Your task to perform on an android device: check battery use Image 0: 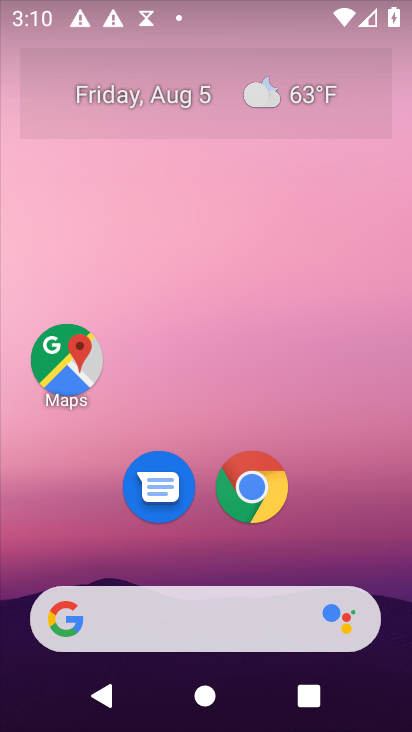
Step 0: click (350, 70)
Your task to perform on an android device: check battery use Image 1: 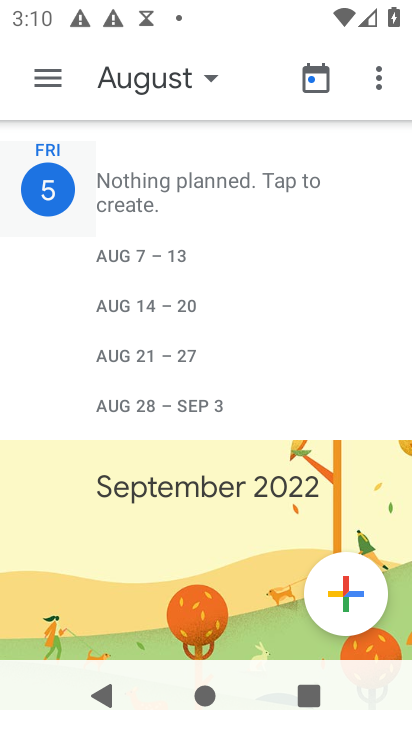
Step 1: press home button
Your task to perform on an android device: check battery use Image 2: 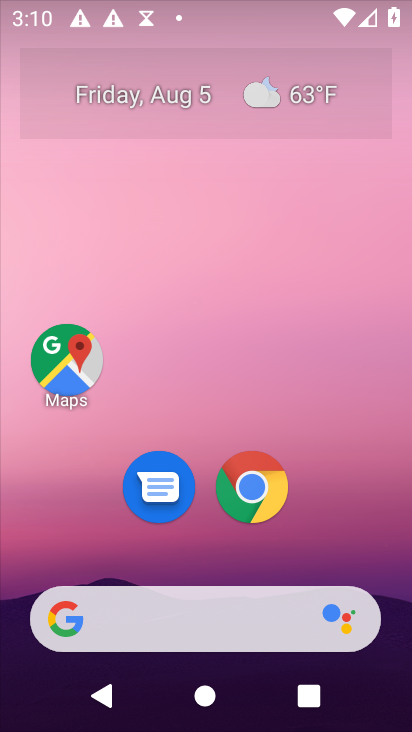
Step 2: drag from (199, 566) to (268, 163)
Your task to perform on an android device: check battery use Image 3: 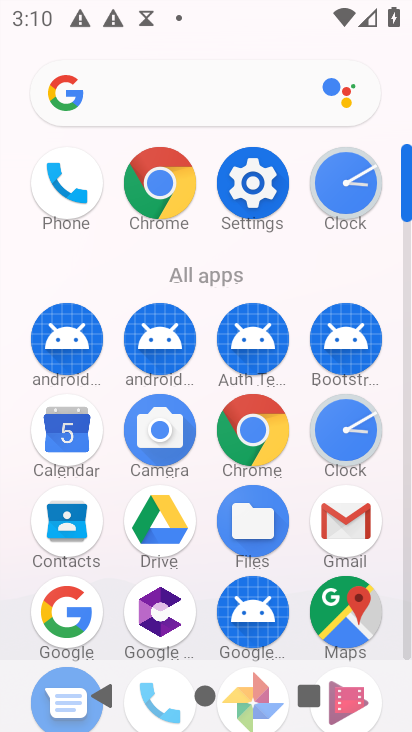
Step 3: click (263, 179)
Your task to perform on an android device: check battery use Image 4: 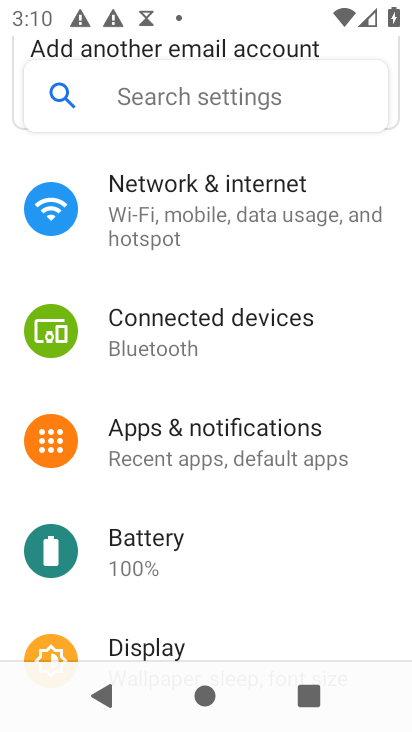
Step 4: click (175, 522)
Your task to perform on an android device: check battery use Image 5: 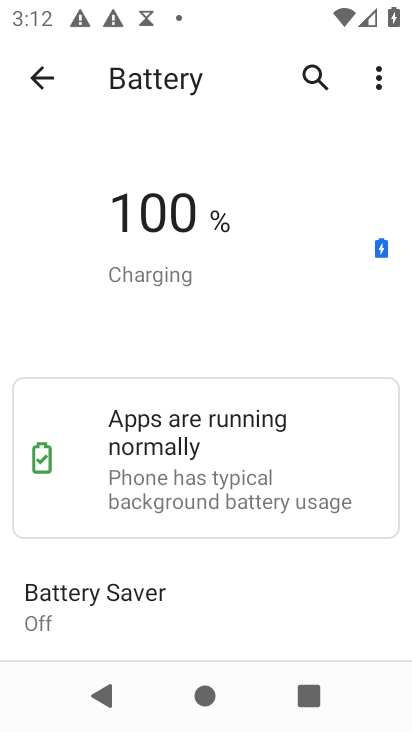
Step 5: task complete